Your task to perform on an android device: see creations saved in the google photos Image 0: 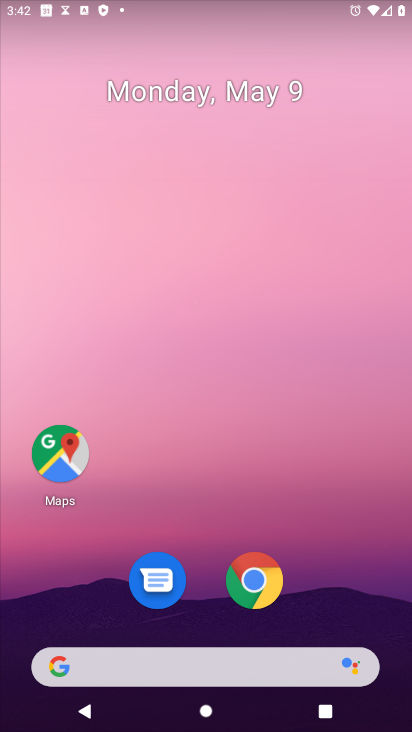
Step 0: drag from (311, 510) to (245, 23)
Your task to perform on an android device: see creations saved in the google photos Image 1: 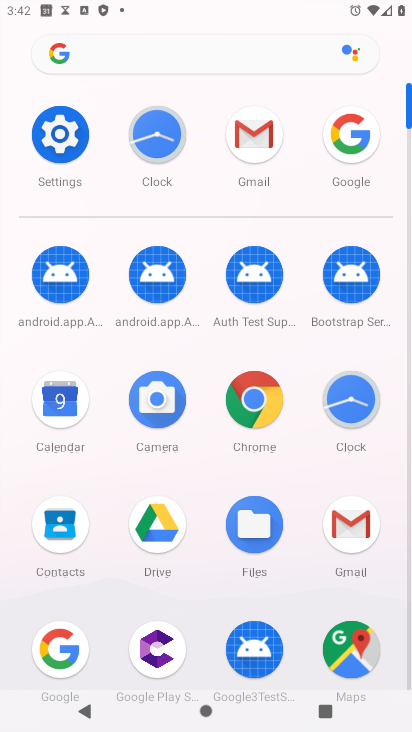
Step 1: drag from (222, 537) to (258, 160)
Your task to perform on an android device: see creations saved in the google photos Image 2: 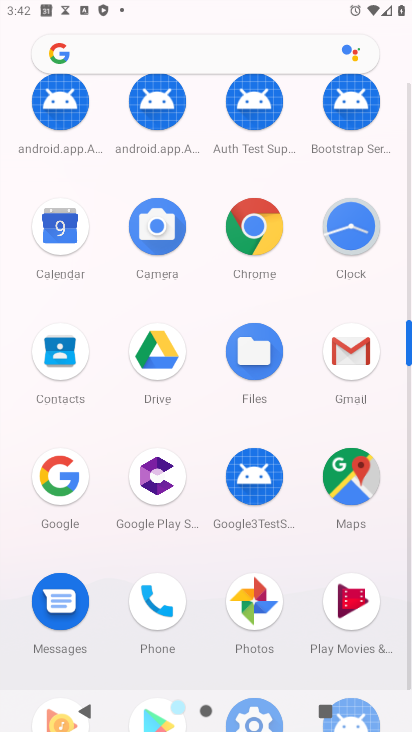
Step 2: click (253, 598)
Your task to perform on an android device: see creations saved in the google photos Image 3: 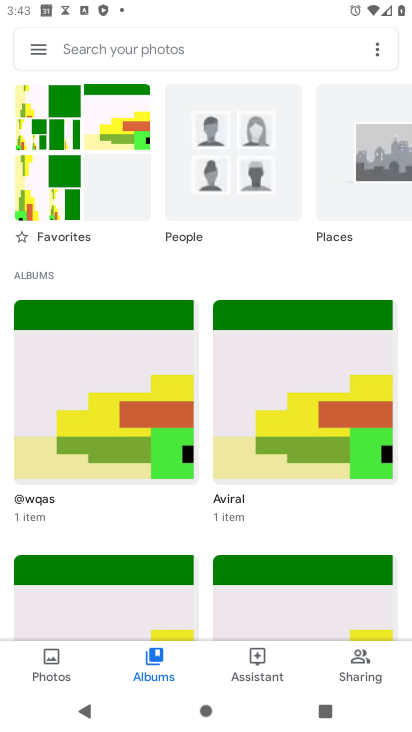
Step 3: click (182, 50)
Your task to perform on an android device: see creations saved in the google photos Image 4: 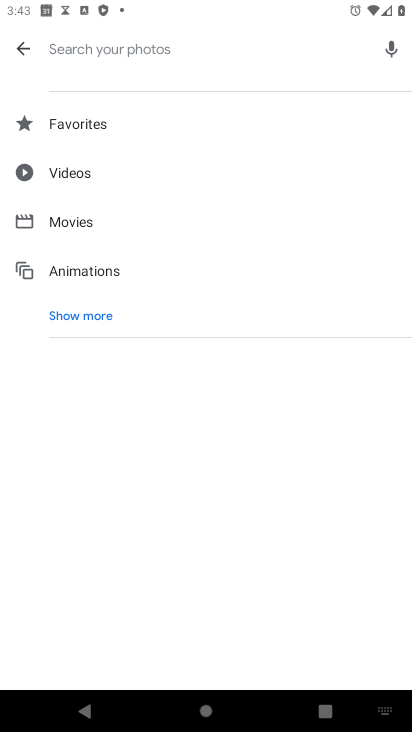
Step 4: type "creation"
Your task to perform on an android device: see creations saved in the google photos Image 5: 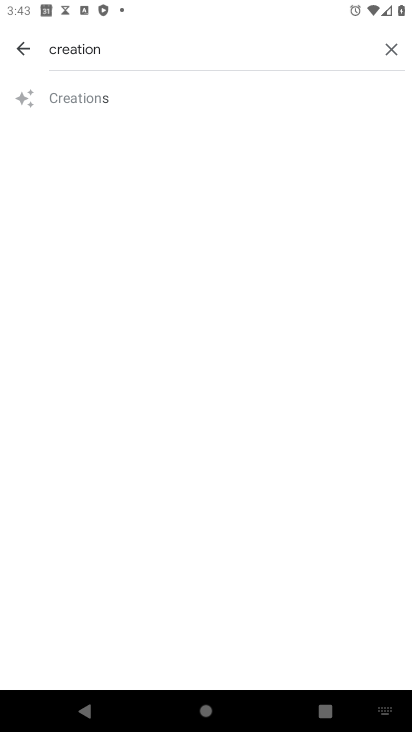
Step 5: click (94, 133)
Your task to perform on an android device: see creations saved in the google photos Image 6: 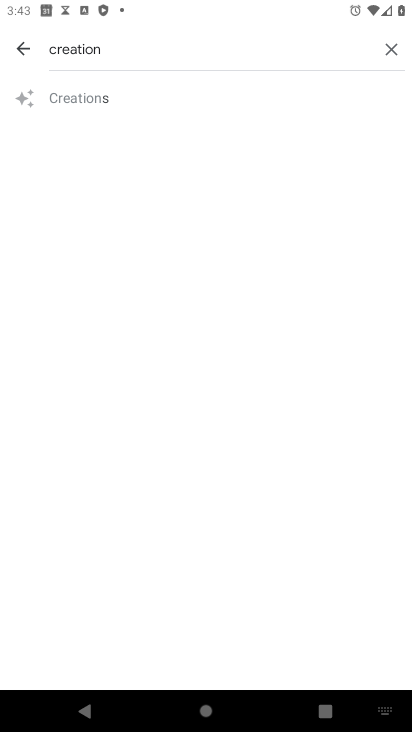
Step 6: click (124, 116)
Your task to perform on an android device: see creations saved in the google photos Image 7: 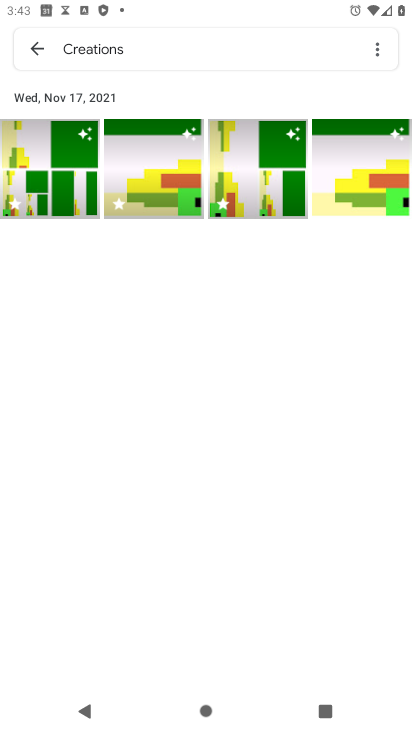
Step 7: task complete